Your task to perform on an android device: Open notification settings Image 0: 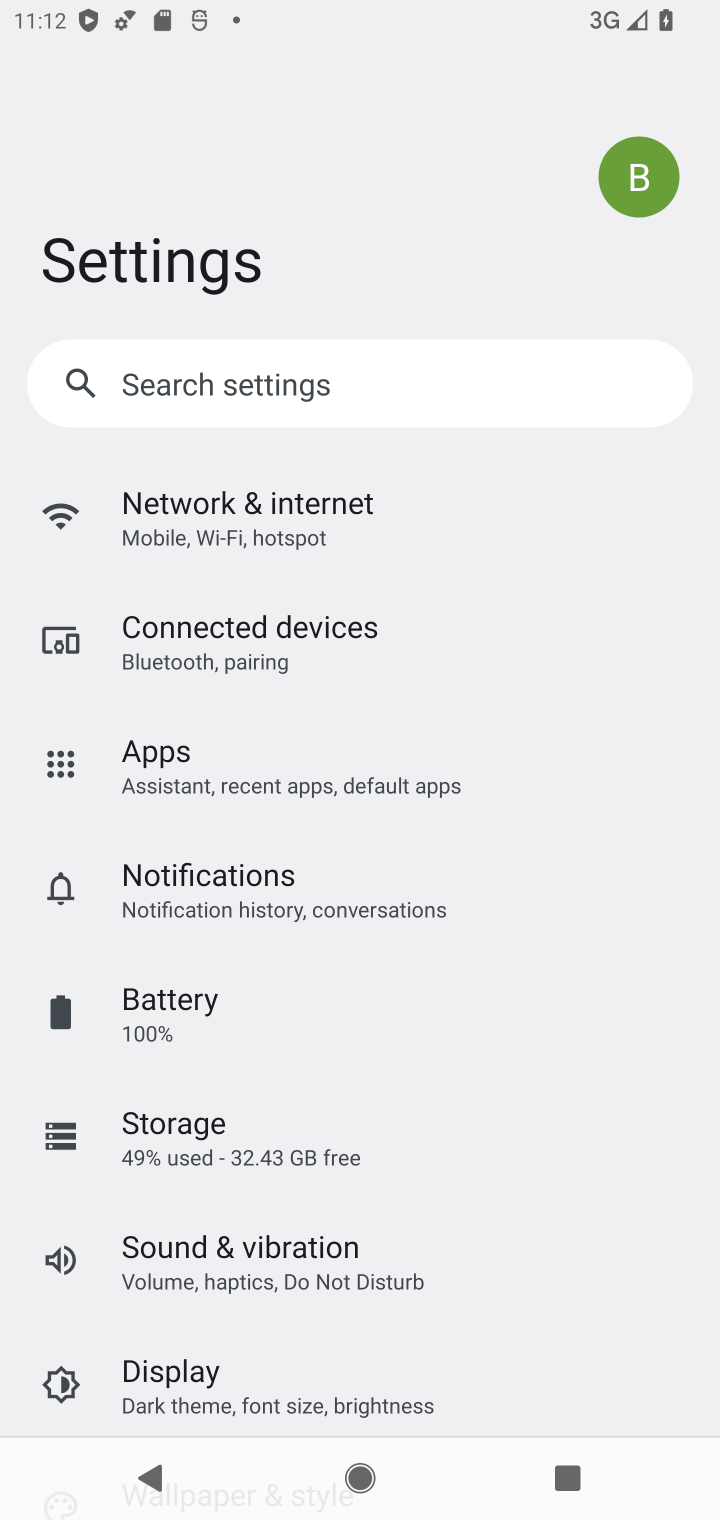
Step 0: click (266, 898)
Your task to perform on an android device: Open notification settings Image 1: 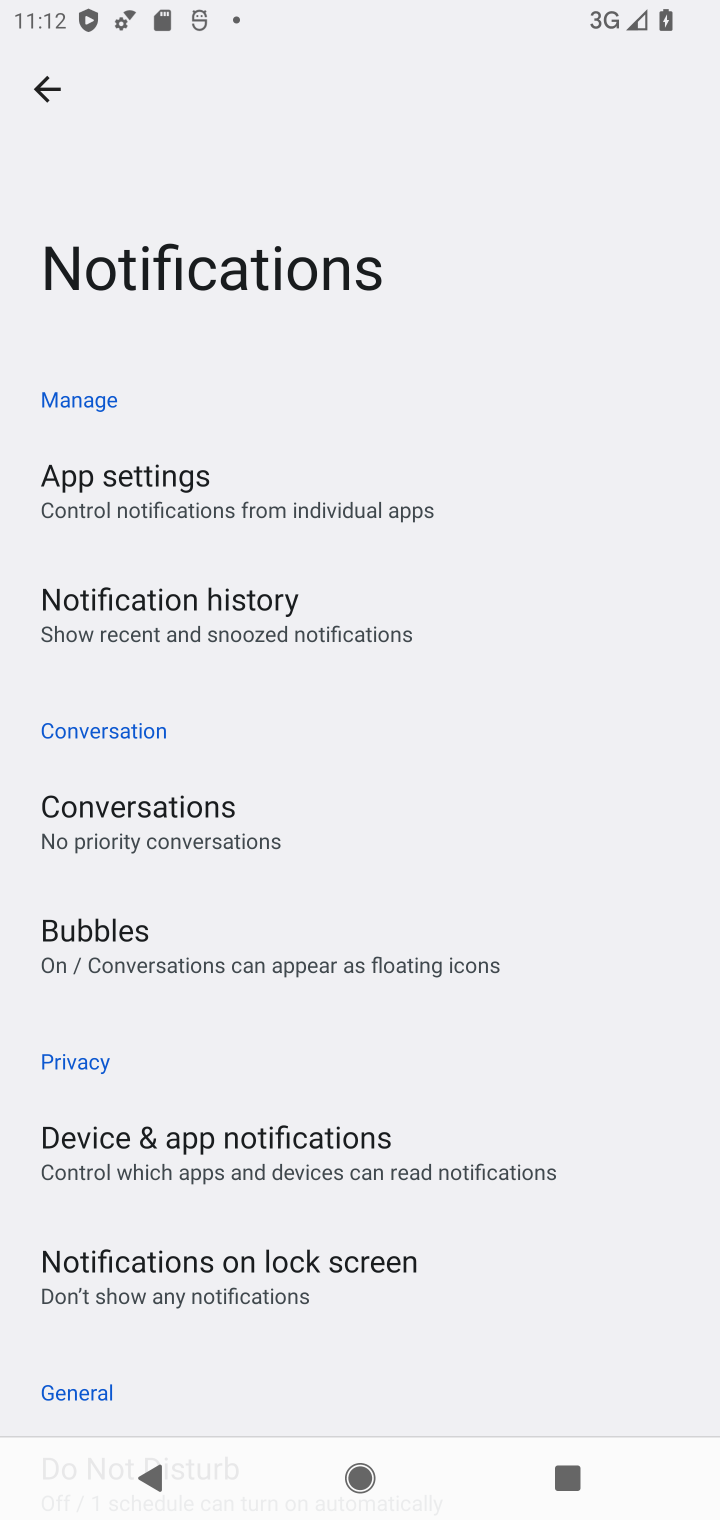
Step 1: task complete